Your task to perform on an android device: Go to Reddit.com Image 0: 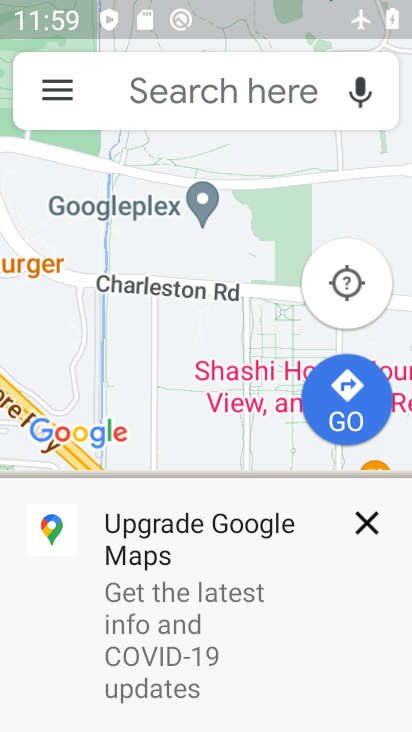
Step 0: press home button
Your task to perform on an android device: Go to Reddit.com Image 1: 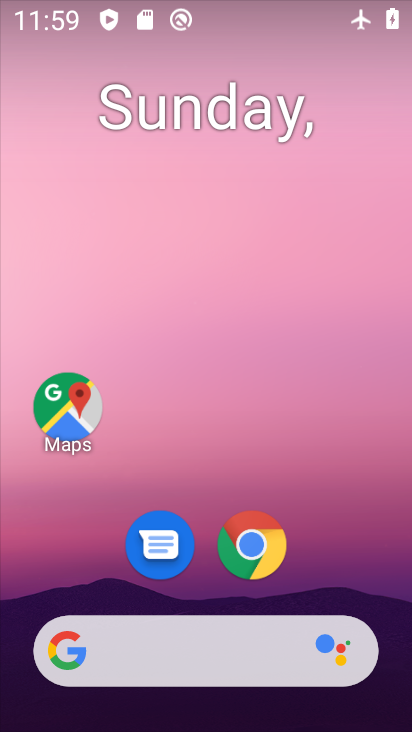
Step 1: drag from (378, 571) to (361, 151)
Your task to perform on an android device: Go to Reddit.com Image 2: 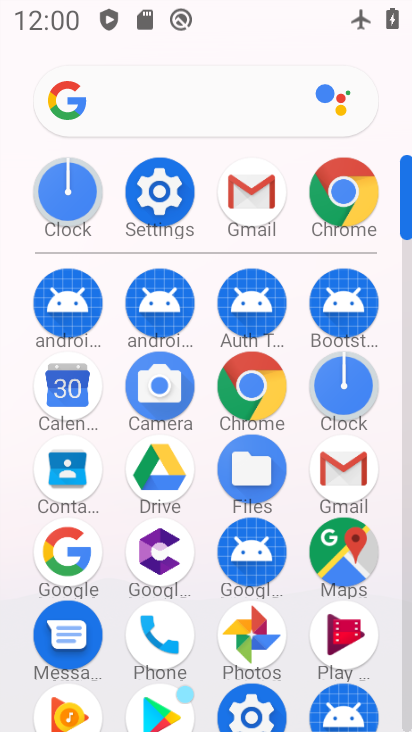
Step 2: click (270, 397)
Your task to perform on an android device: Go to Reddit.com Image 3: 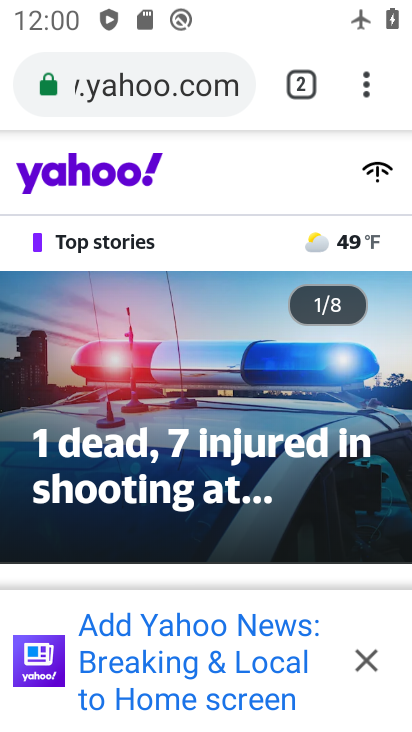
Step 3: click (175, 79)
Your task to perform on an android device: Go to Reddit.com Image 4: 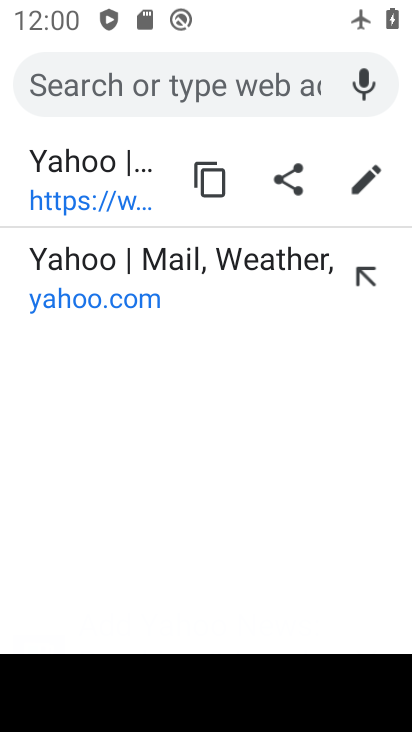
Step 4: type "reddit.com"
Your task to perform on an android device: Go to Reddit.com Image 5: 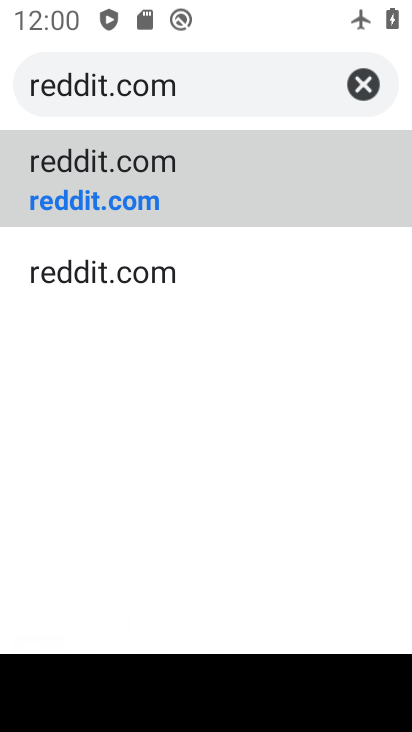
Step 5: click (174, 190)
Your task to perform on an android device: Go to Reddit.com Image 6: 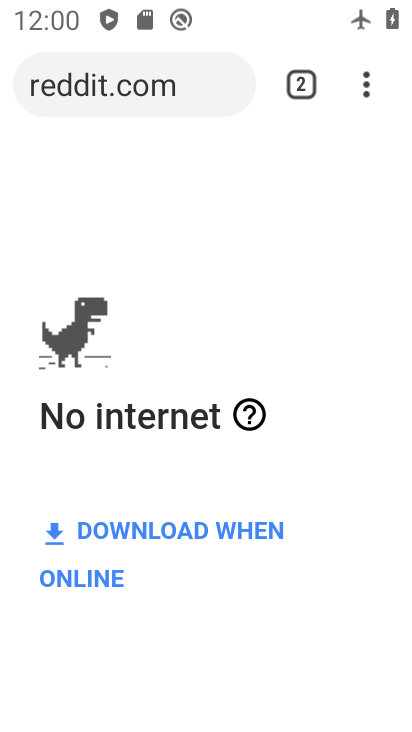
Step 6: task complete